Your task to perform on an android device: open app "Reddit" (install if not already installed) and go to login screen Image 0: 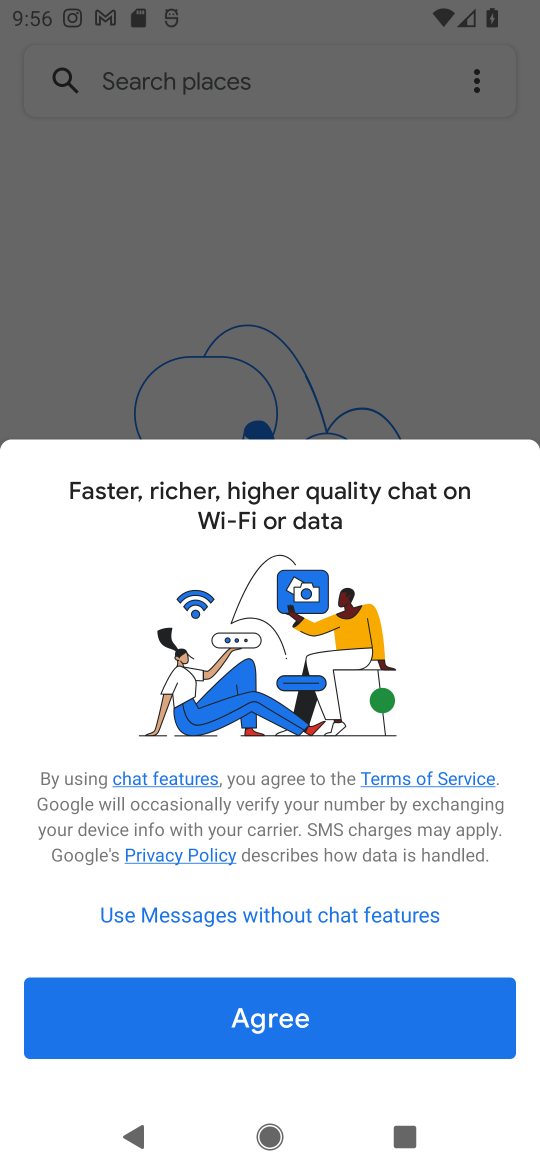
Step 0: press home button
Your task to perform on an android device: open app "Reddit" (install if not already installed) and go to login screen Image 1: 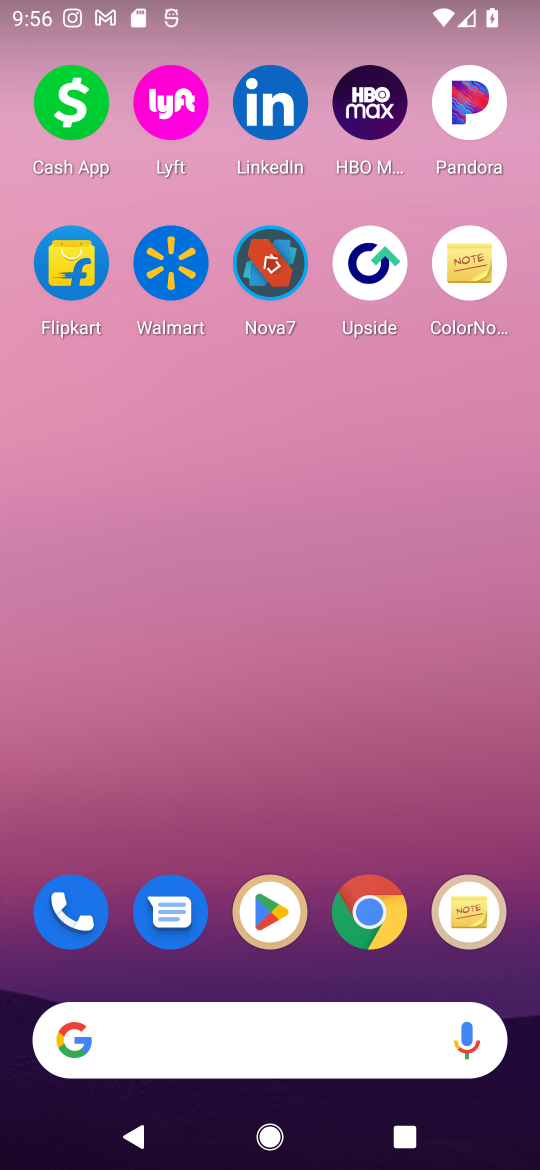
Step 1: click (270, 905)
Your task to perform on an android device: open app "Reddit" (install if not already installed) and go to login screen Image 2: 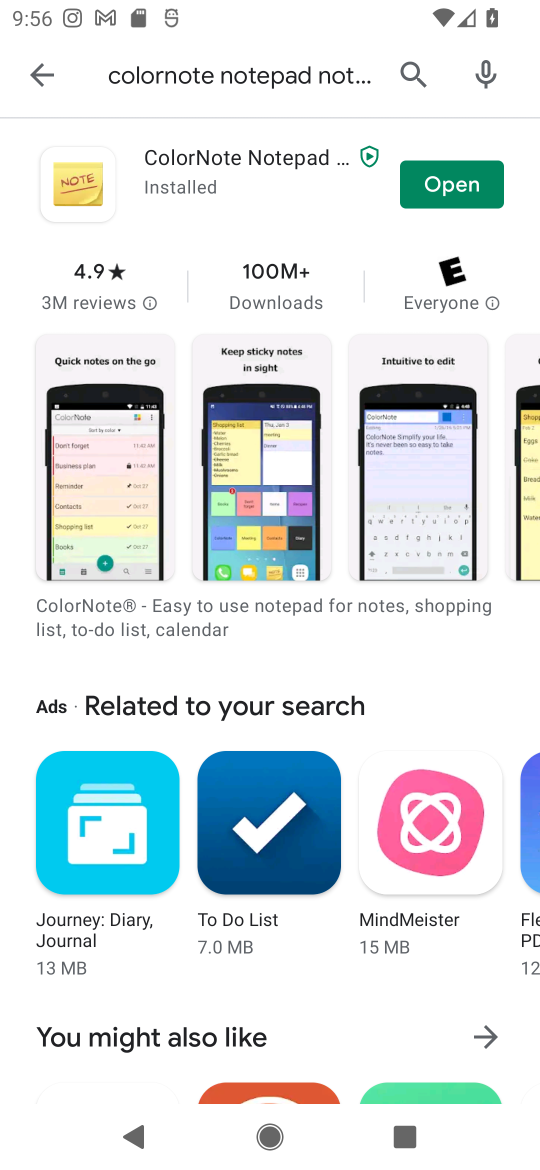
Step 2: click (410, 70)
Your task to perform on an android device: open app "Reddit" (install if not already installed) and go to login screen Image 3: 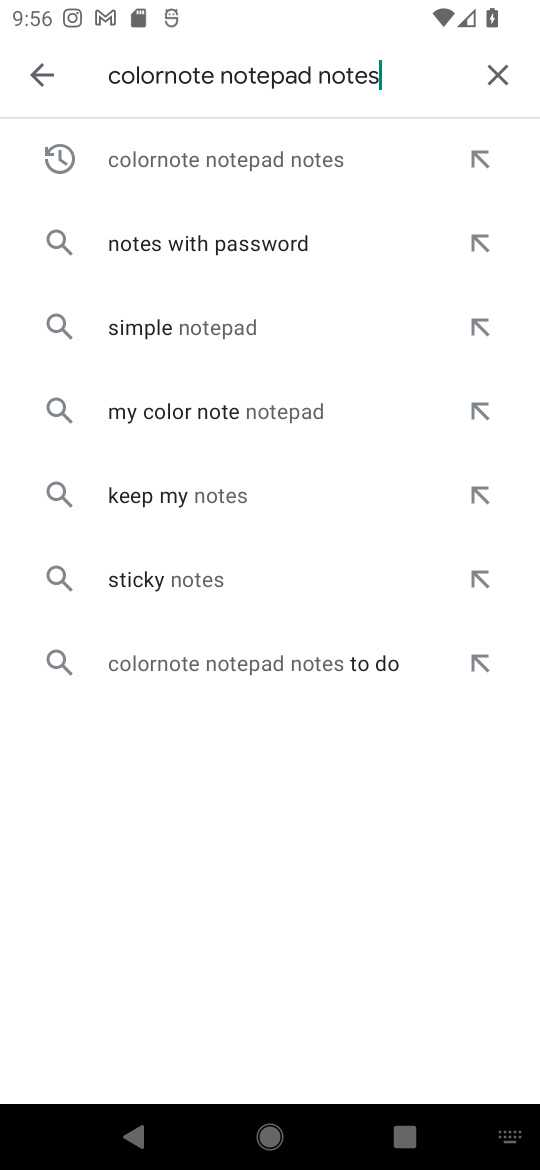
Step 3: click (494, 69)
Your task to perform on an android device: open app "Reddit" (install if not already installed) and go to login screen Image 4: 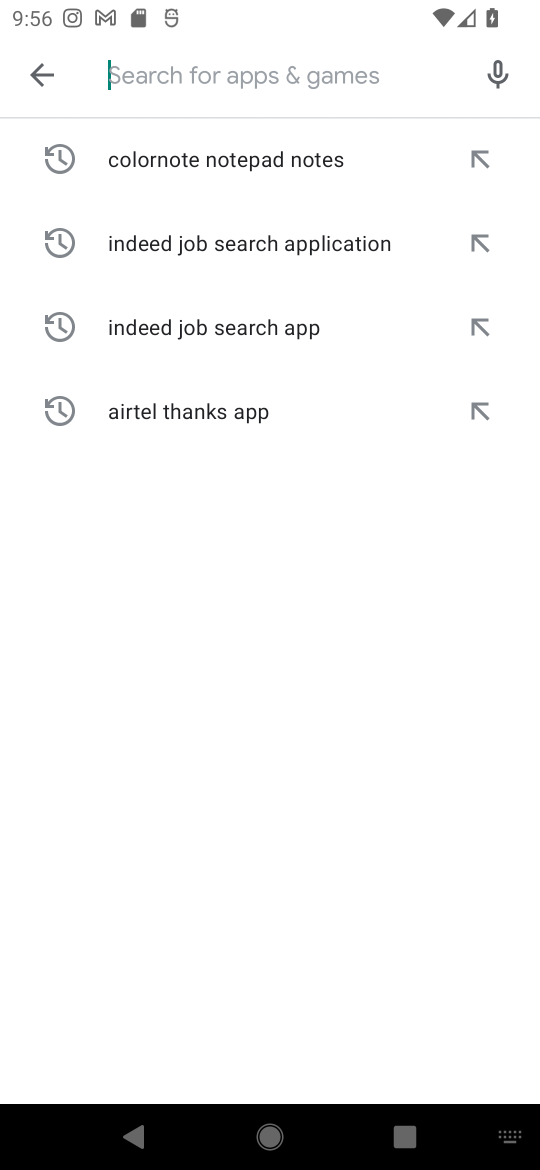
Step 4: type "Reddit"
Your task to perform on an android device: open app "Reddit" (install if not already installed) and go to login screen Image 5: 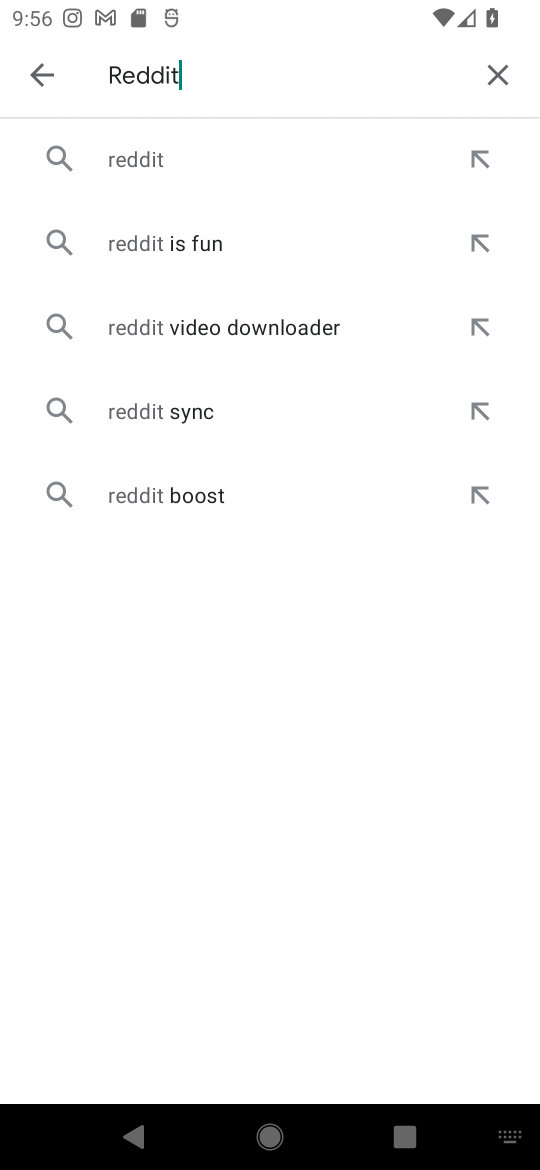
Step 5: click (136, 152)
Your task to perform on an android device: open app "Reddit" (install if not already installed) and go to login screen Image 6: 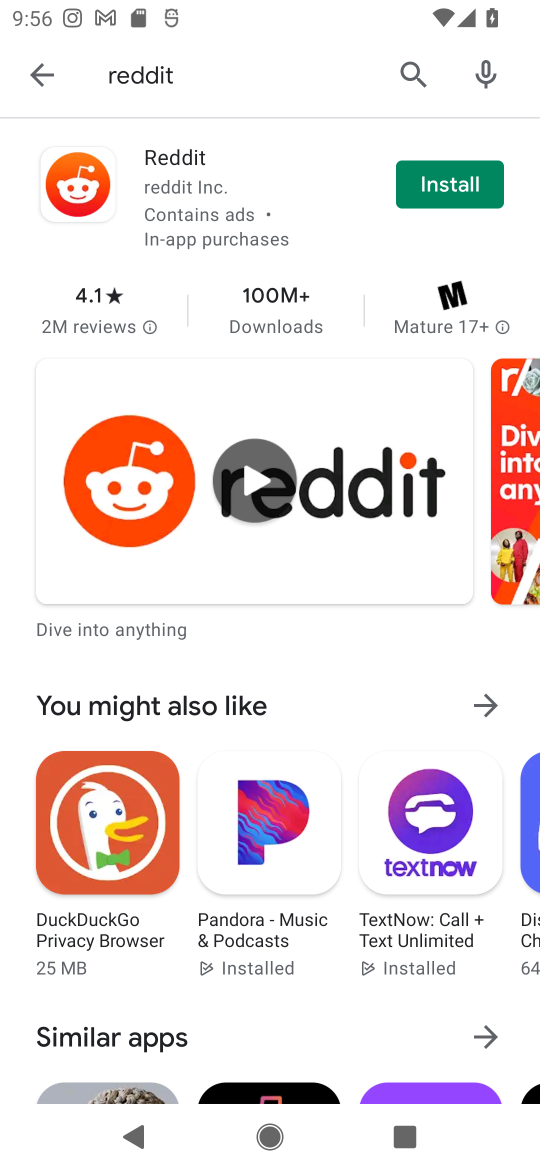
Step 6: click (471, 181)
Your task to perform on an android device: open app "Reddit" (install if not already installed) and go to login screen Image 7: 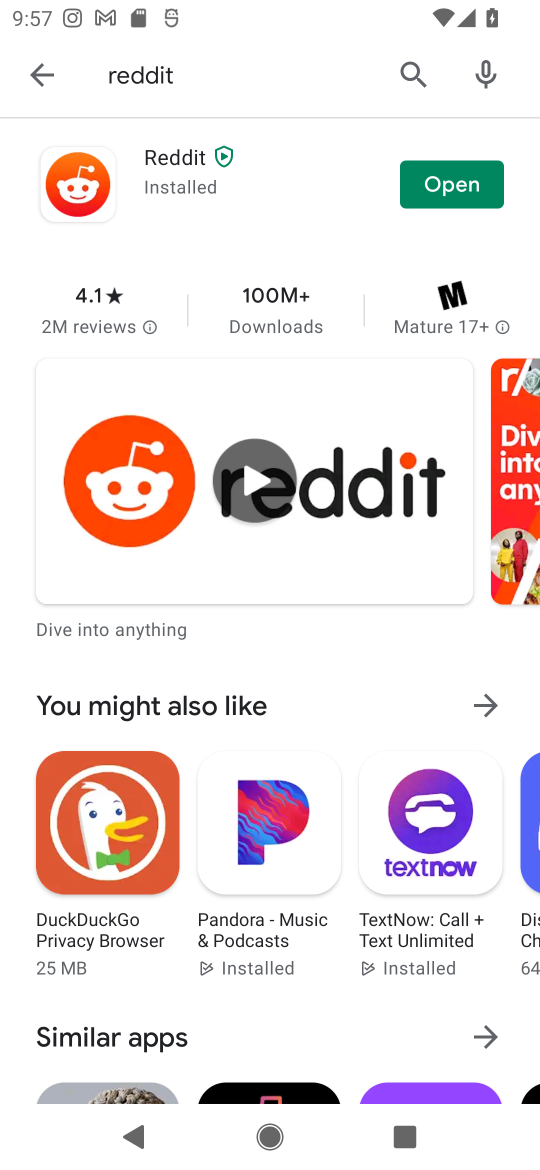
Step 7: click (459, 191)
Your task to perform on an android device: open app "Reddit" (install if not already installed) and go to login screen Image 8: 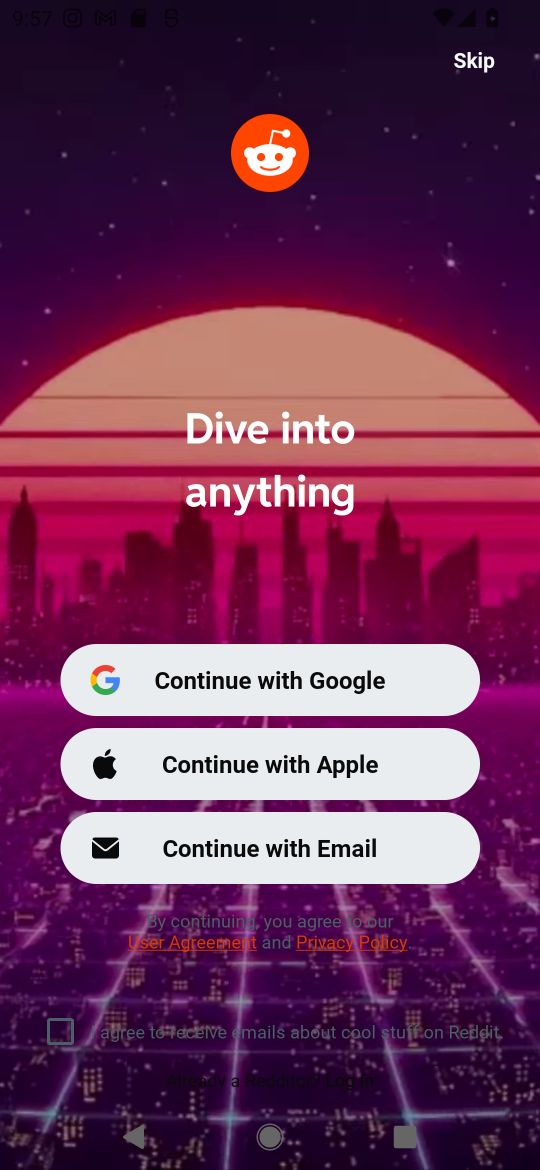
Step 8: task complete